Your task to perform on an android device: turn smart compose on in the gmail app Image 0: 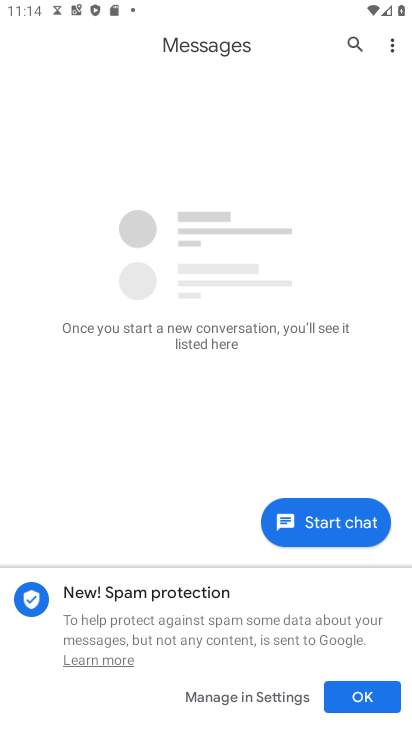
Step 0: drag from (263, 632) to (253, 9)
Your task to perform on an android device: turn smart compose on in the gmail app Image 1: 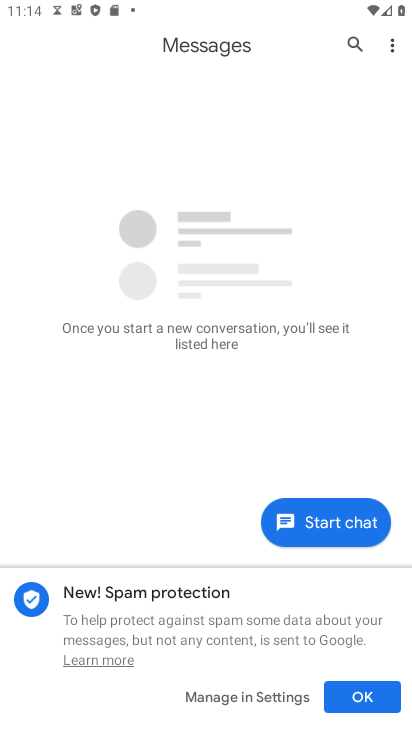
Step 1: press home button
Your task to perform on an android device: turn smart compose on in the gmail app Image 2: 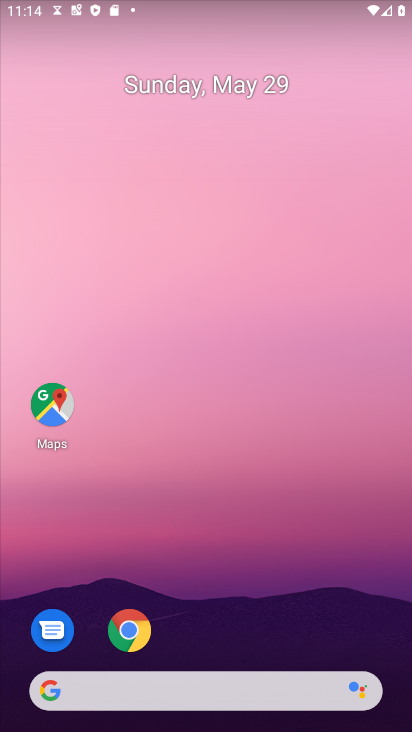
Step 2: drag from (166, 615) to (209, 55)
Your task to perform on an android device: turn smart compose on in the gmail app Image 3: 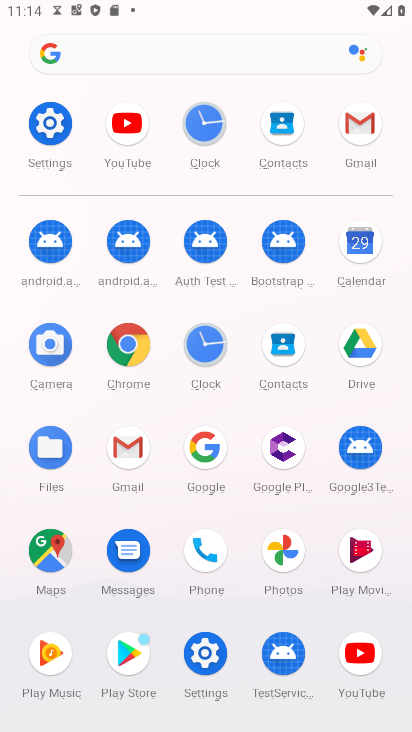
Step 3: click (344, 143)
Your task to perform on an android device: turn smart compose on in the gmail app Image 4: 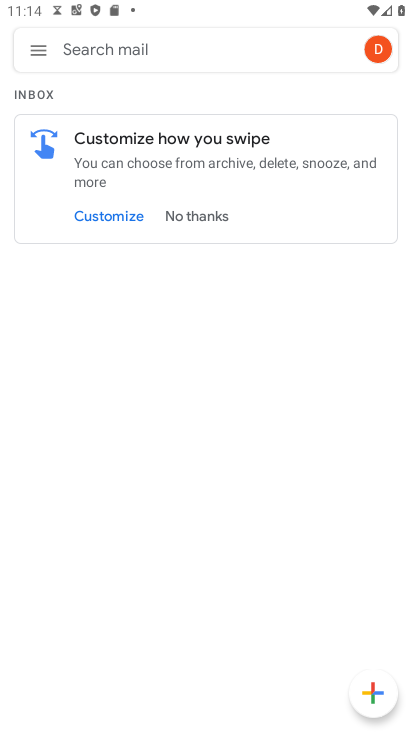
Step 4: click (39, 46)
Your task to perform on an android device: turn smart compose on in the gmail app Image 5: 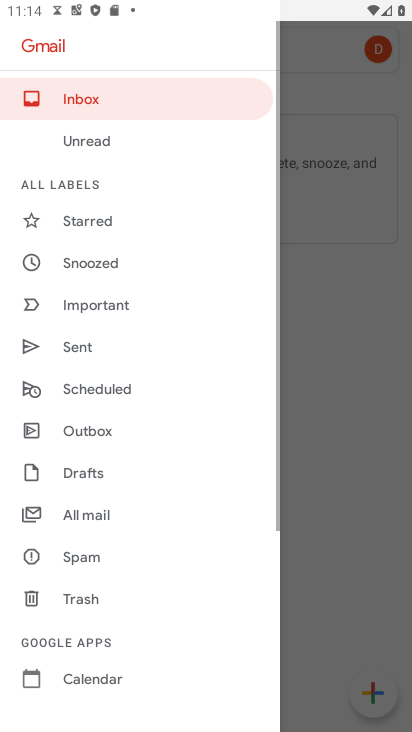
Step 5: drag from (112, 643) to (139, 85)
Your task to perform on an android device: turn smart compose on in the gmail app Image 6: 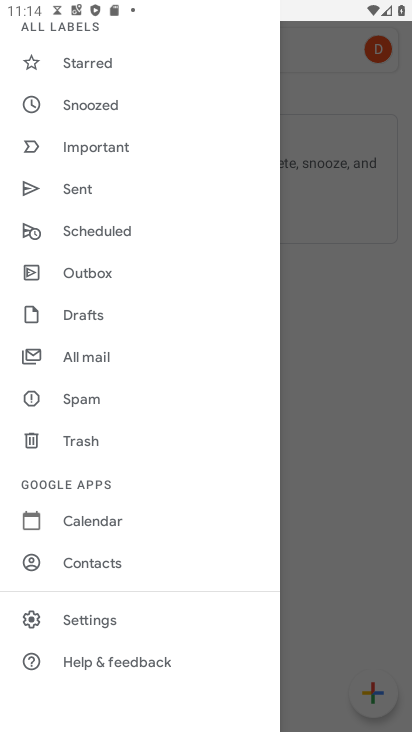
Step 6: click (77, 611)
Your task to perform on an android device: turn smart compose on in the gmail app Image 7: 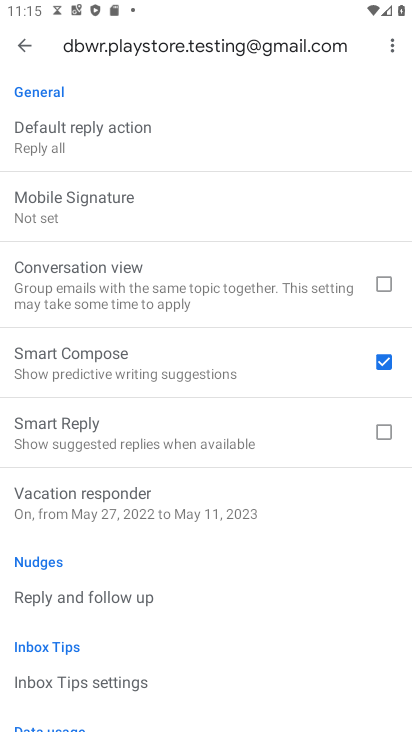
Step 7: click (377, 358)
Your task to perform on an android device: turn smart compose on in the gmail app Image 8: 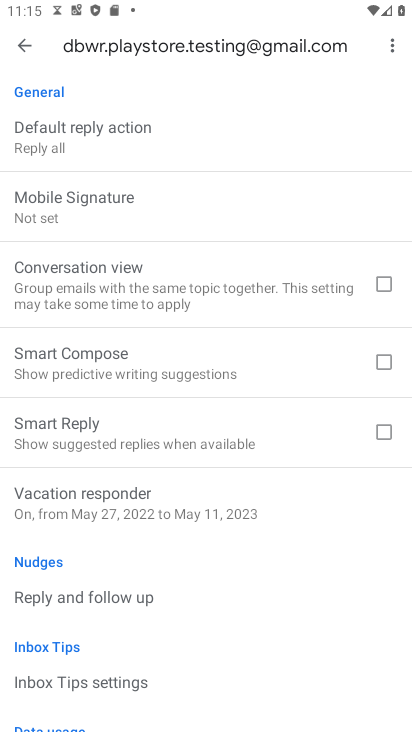
Step 8: task complete